Your task to perform on an android device: toggle data saver in the chrome app Image 0: 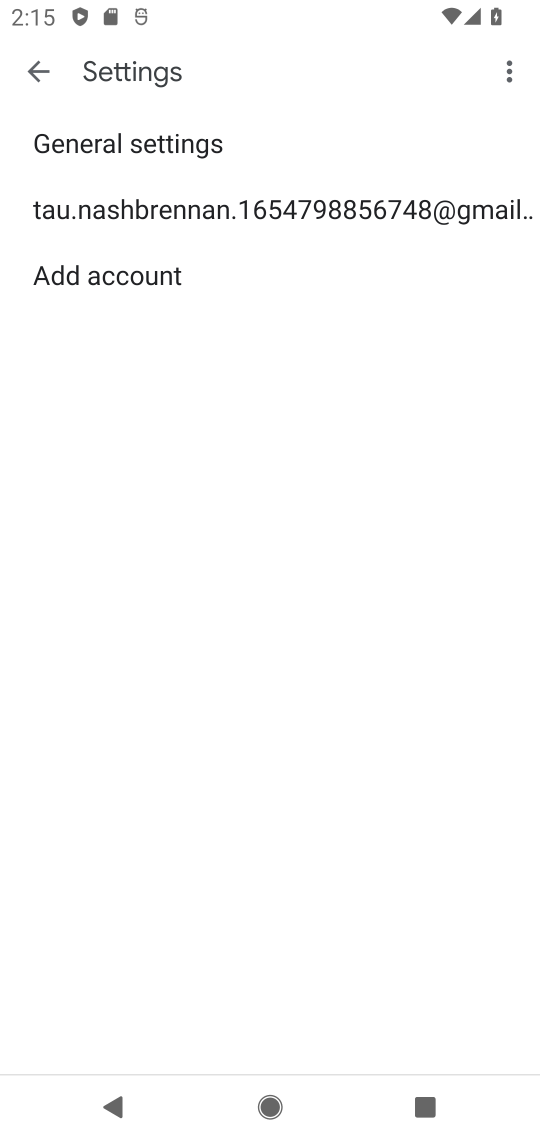
Step 0: press home button
Your task to perform on an android device: toggle data saver in the chrome app Image 1: 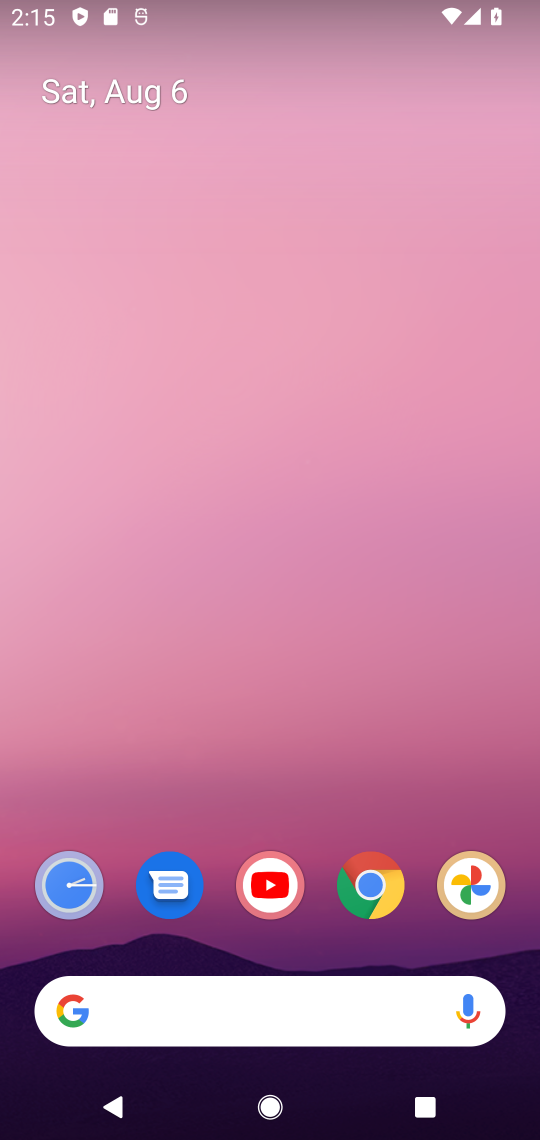
Step 1: drag from (514, 1000) to (267, 11)
Your task to perform on an android device: toggle data saver in the chrome app Image 2: 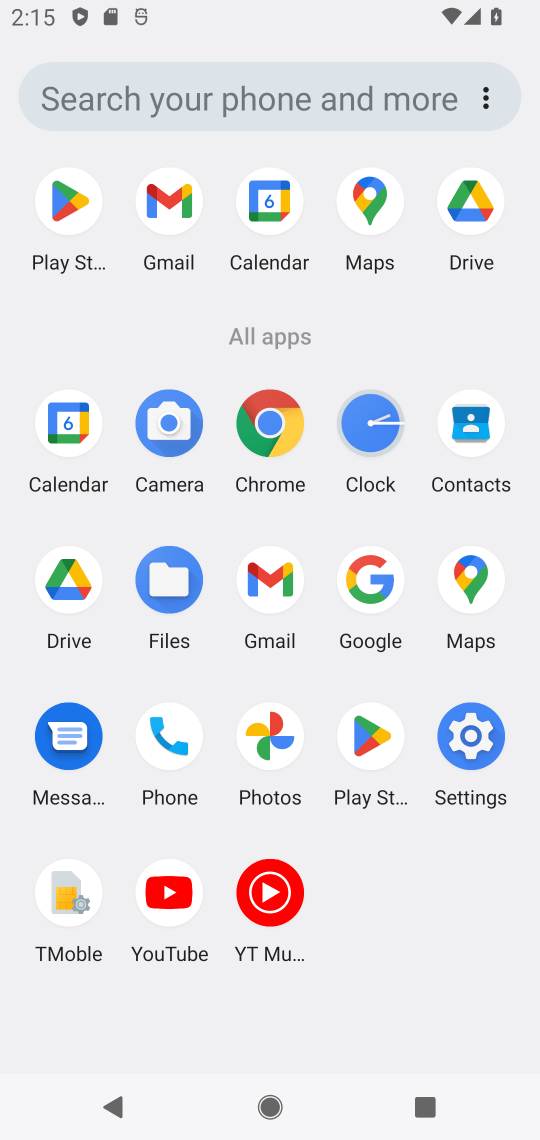
Step 2: click (268, 423)
Your task to perform on an android device: toggle data saver in the chrome app Image 3: 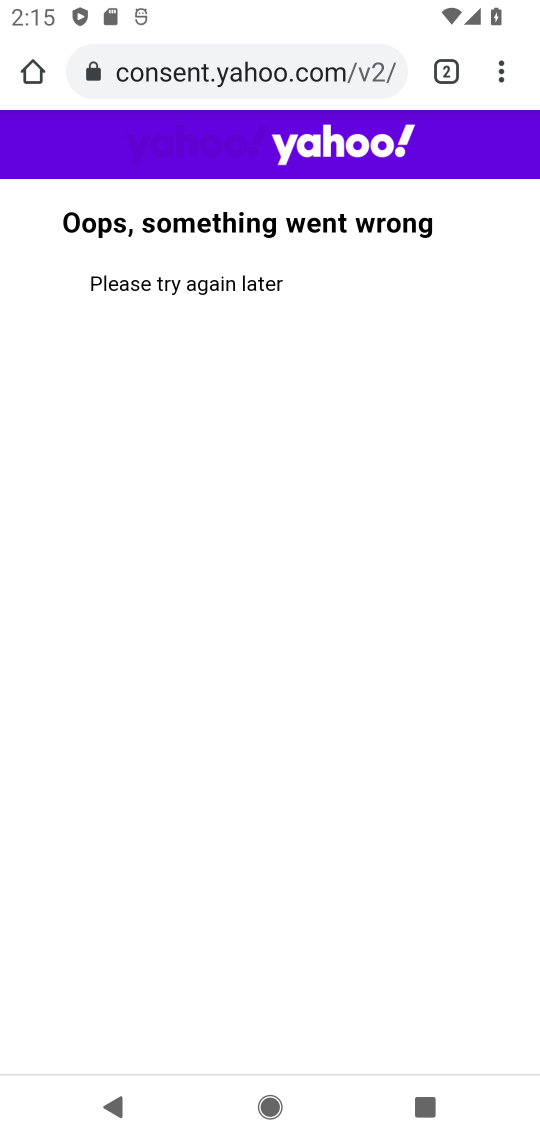
Step 3: press back button
Your task to perform on an android device: toggle data saver in the chrome app Image 4: 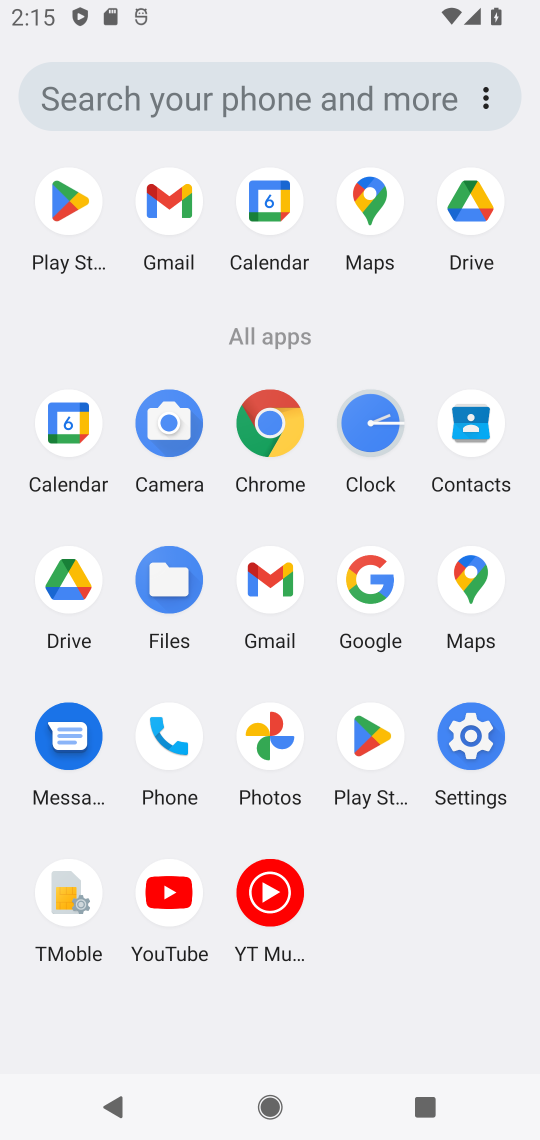
Step 4: click (282, 443)
Your task to perform on an android device: toggle data saver in the chrome app Image 5: 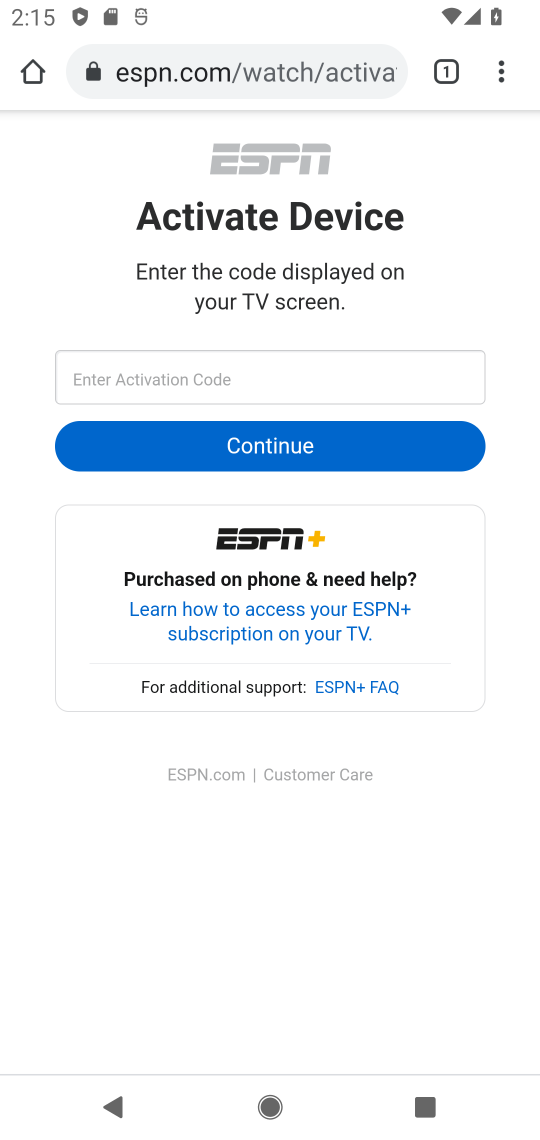
Step 5: click (505, 69)
Your task to perform on an android device: toggle data saver in the chrome app Image 6: 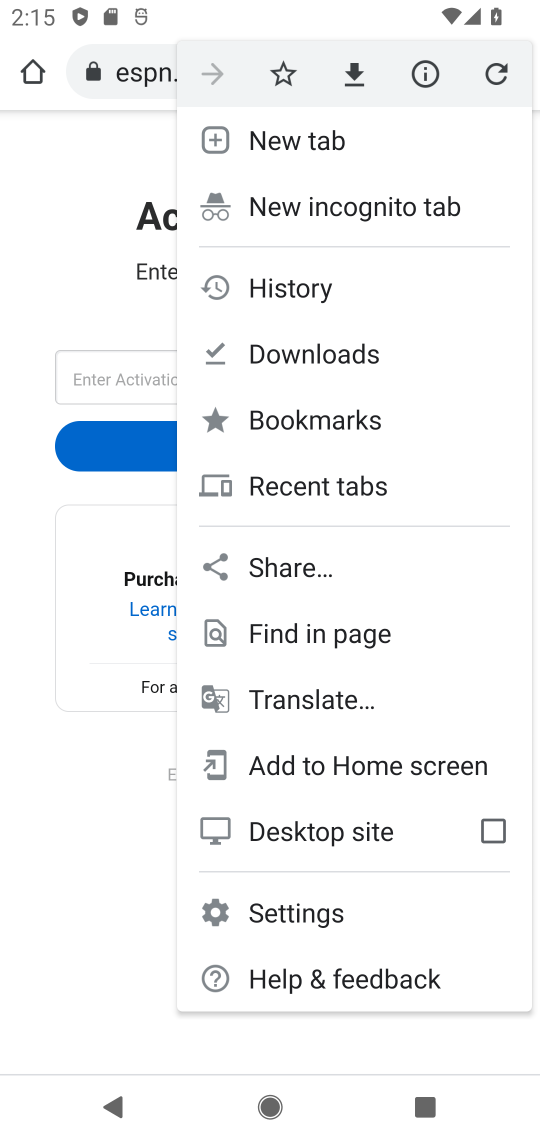
Step 6: click (299, 914)
Your task to perform on an android device: toggle data saver in the chrome app Image 7: 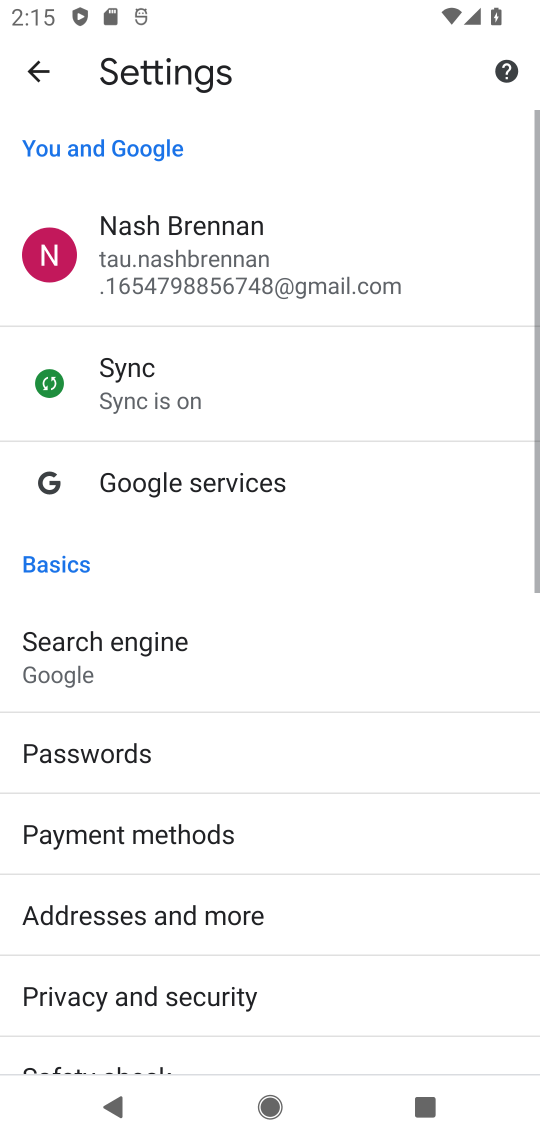
Step 7: drag from (174, 1047) to (229, 125)
Your task to perform on an android device: toggle data saver in the chrome app Image 8: 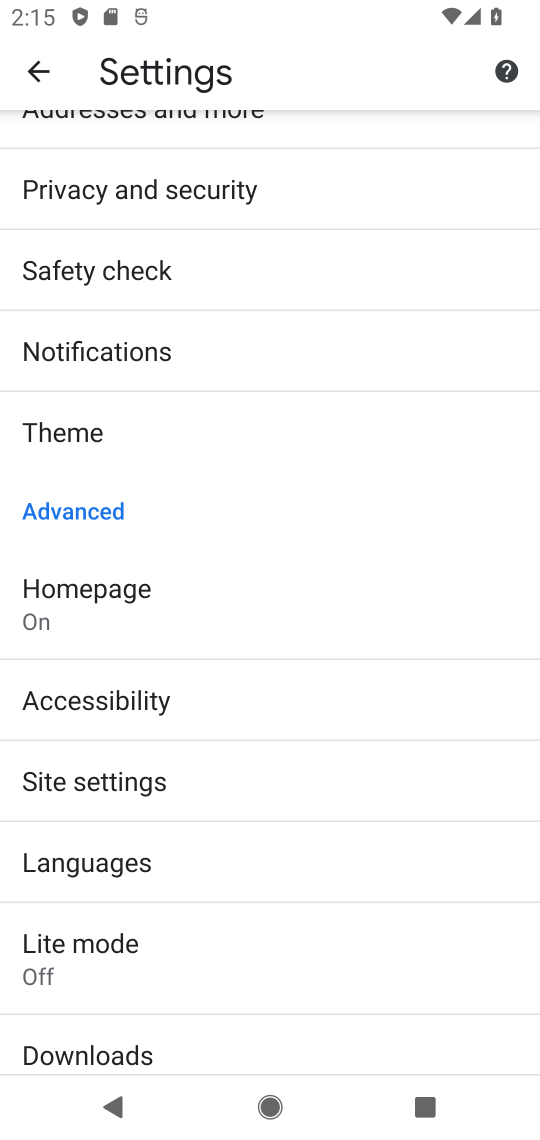
Step 8: click (91, 944)
Your task to perform on an android device: toggle data saver in the chrome app Image 9: 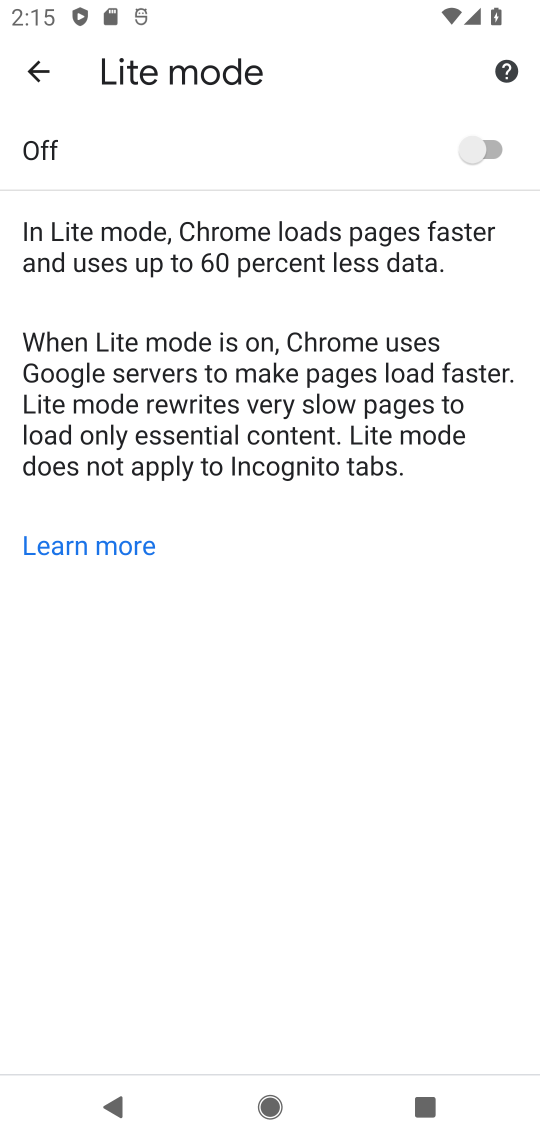
Step 9: click (475, 163)
Your task to perform on an android device: toggle data saver in the chrome app Image 10: 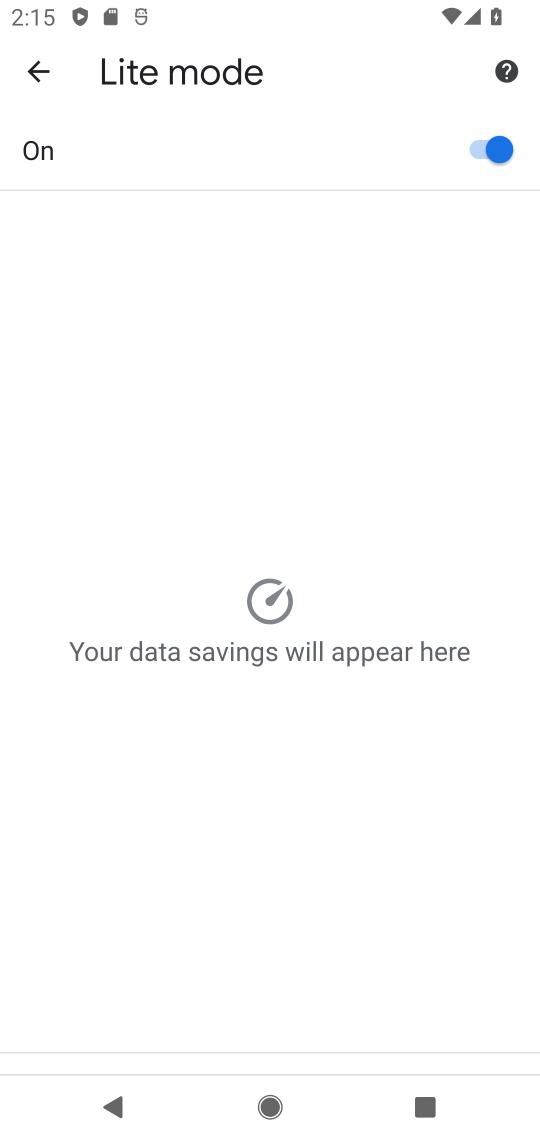
Step 10: task complete